Your task to perform on an android device: show emergency info Image 0: 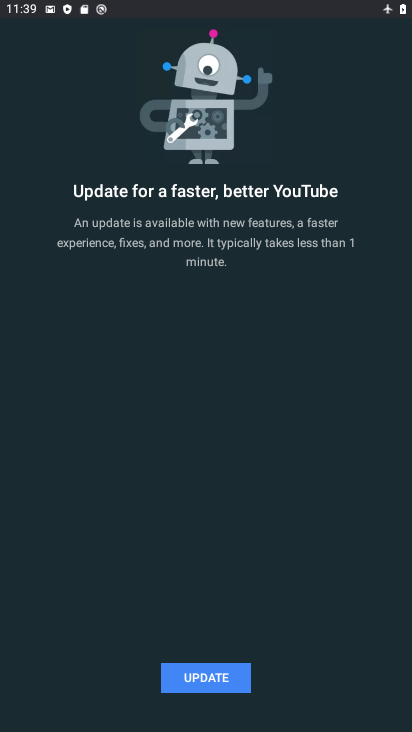
Step 0: press home button
Your task to perform on an android device: show emergency info Image 1: 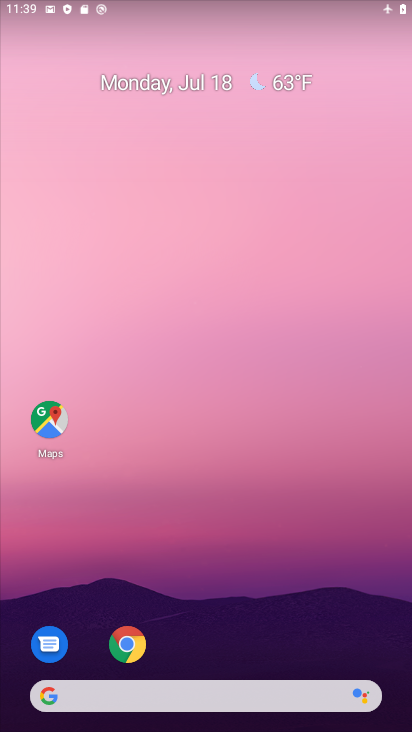
Step 1: drag from (236, 573) to (196, 64)
Your task to perform on an android device: show emergency info Image 2: 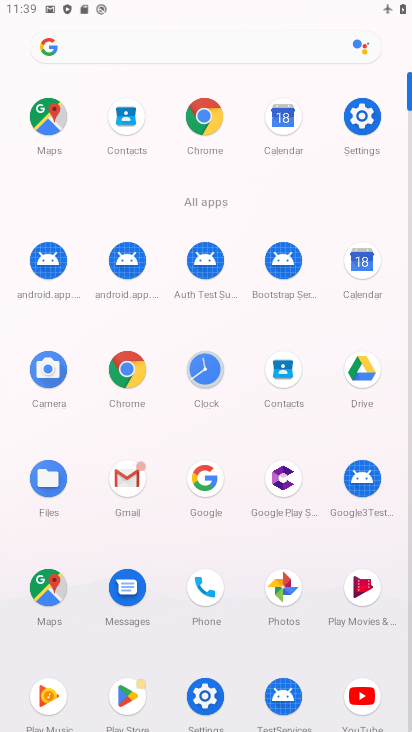
Step 2: click (358, 119)
Your task to perform on an android device: show emergency info Image 3: 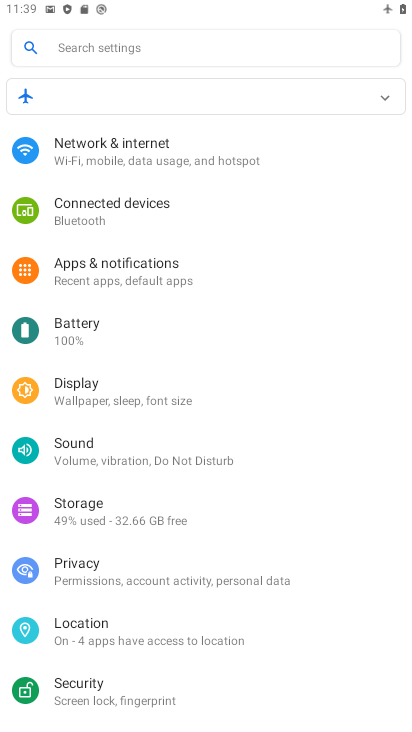
Step 3: drag from (283, 660) to (185, 249)
Your task to perform on an android device: show emergency info Image 4: 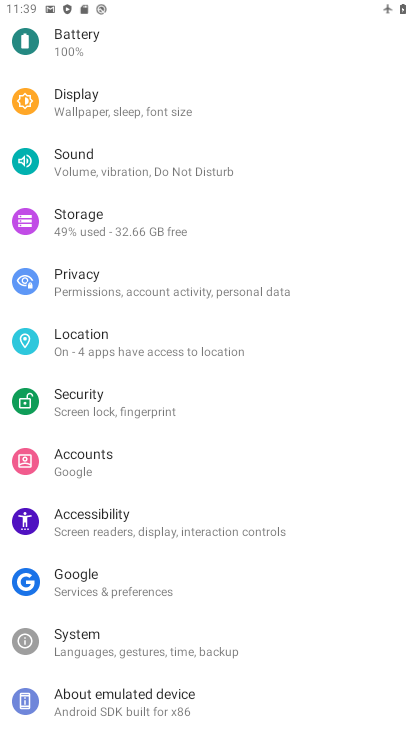
Step 4: click (145, 704)
Your task to perform on an android device: show emergency info Image 5: 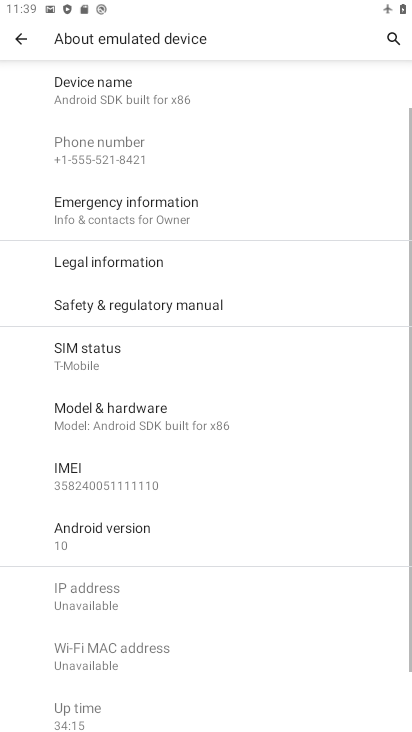
Step 5: click (125, 206)
Your task to perform on an android device: show emergency info Image 6: 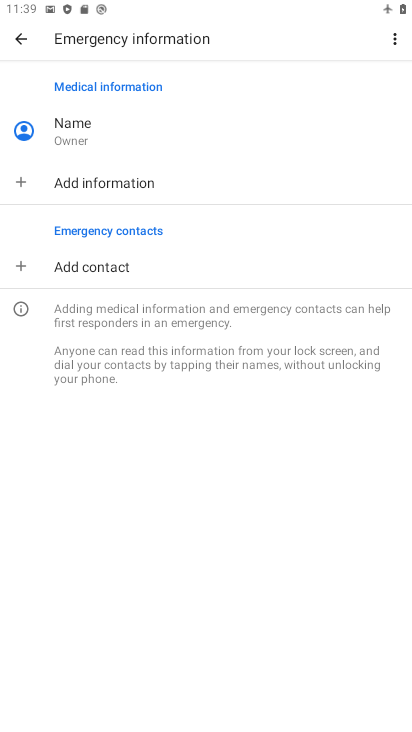
Step 6: task complete